Your task to perform on an android device: toggle wifi Image 0: 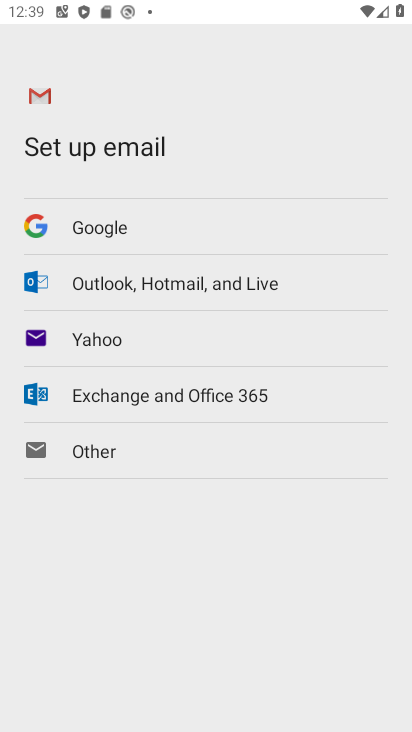
Step 0: press home button
Your task to perform on an android device: toggle wifi Image 1: 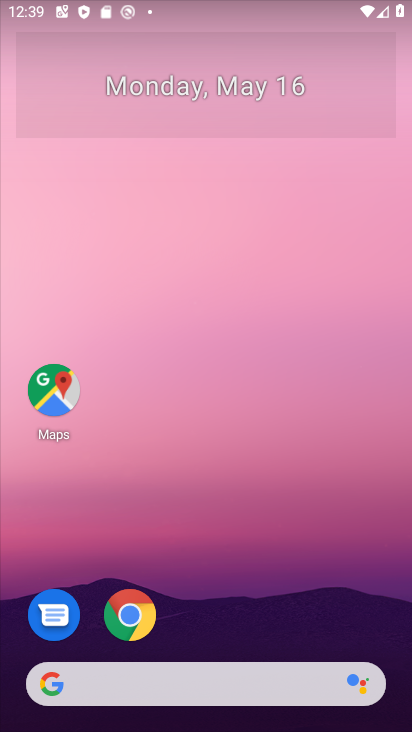
Step 1: drag from (273, 629) to (230, 212)
Your task to perform on an android device: toggle wifi Image 2: 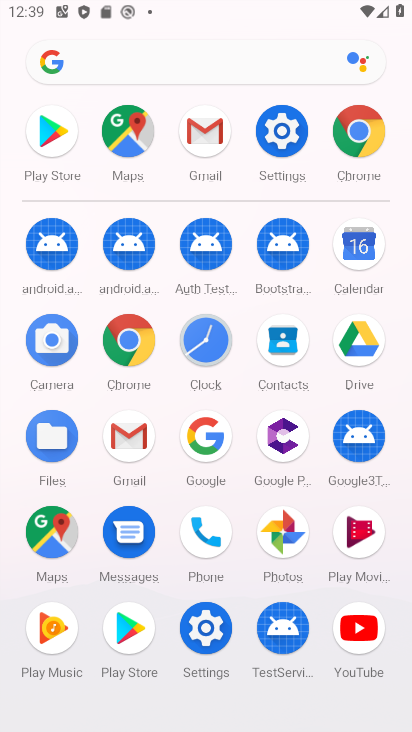
Step 2: click (291, 140)
Your task to perform on an android device: toggle wifi Image 3: 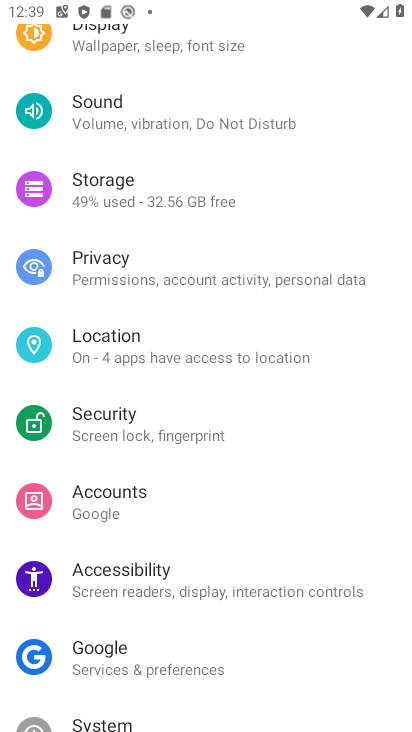
Step 3: drag from (172, 143) to (206, 650)
Your task to perform on an android device: toggle wifi Image 4: 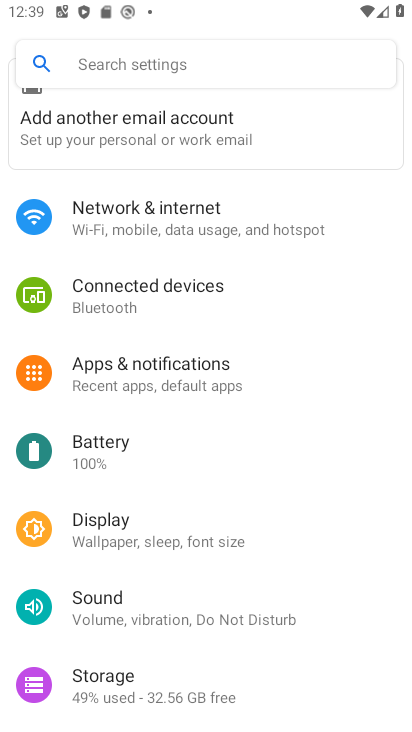
Step 4: click (164, 202)
Your task to perform on an android device: toggle wifi Image 5: 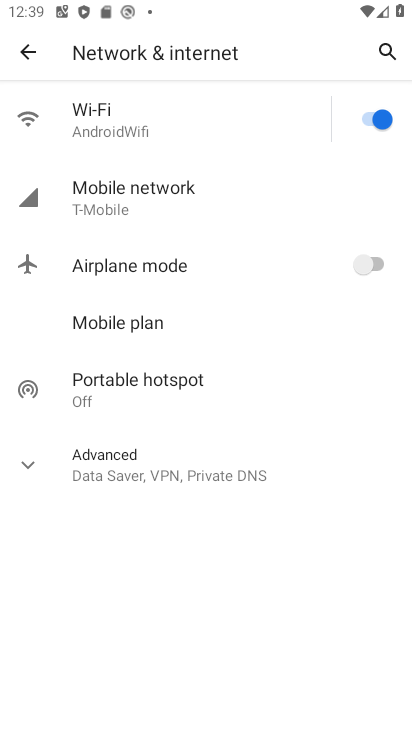
Step 5: click (377, 116)
Your task to perform on an android device: toggle wifi Image 6: 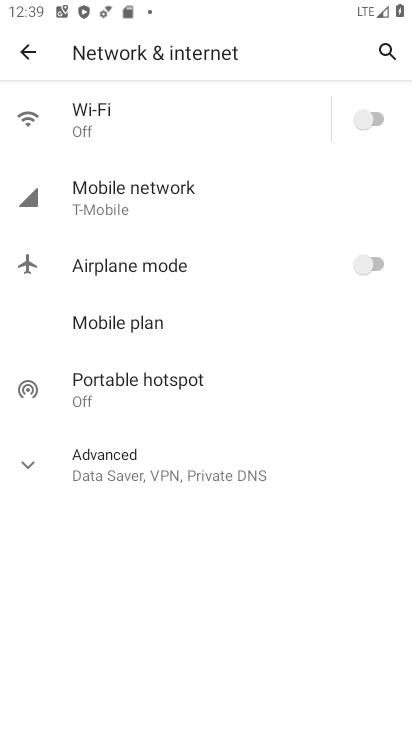
Step 6: task complete